Your task to perform on an android device: Open settings on Google Maps Image 0: 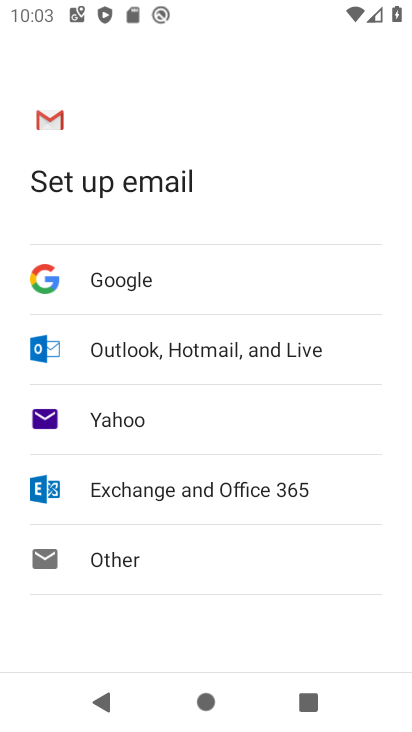
Step 0: press home button
Your task to perform on an android device: Open settings on Google Maps Image 1: 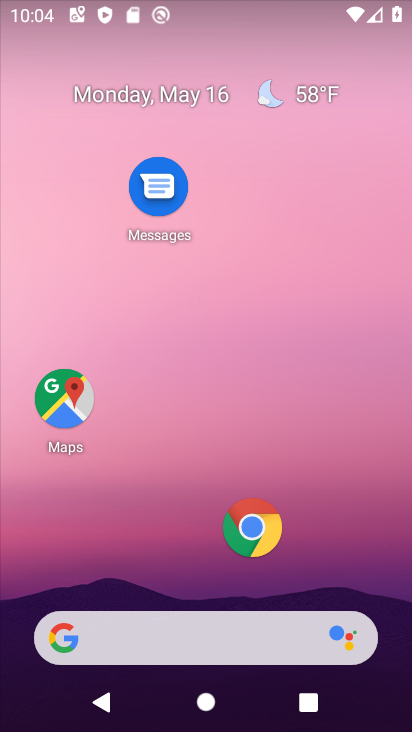
Step 1: click (61, 405)
Your task to perform on an android device: Open settings on Google Maps Image 2: 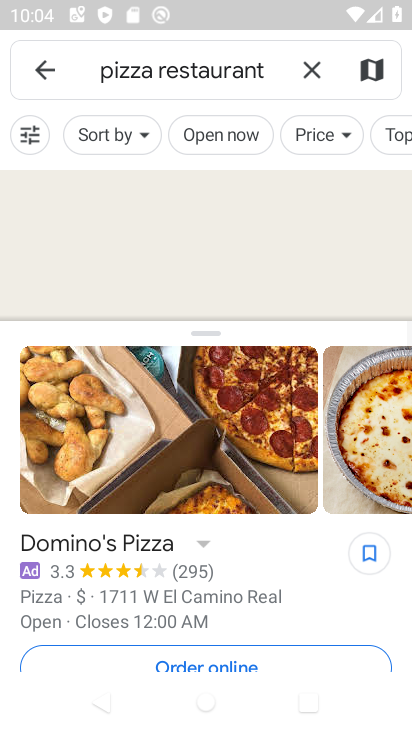
Step 2: click (305, 79)
Your task to perform on an android device: Open settings on Google Maps Image 3: 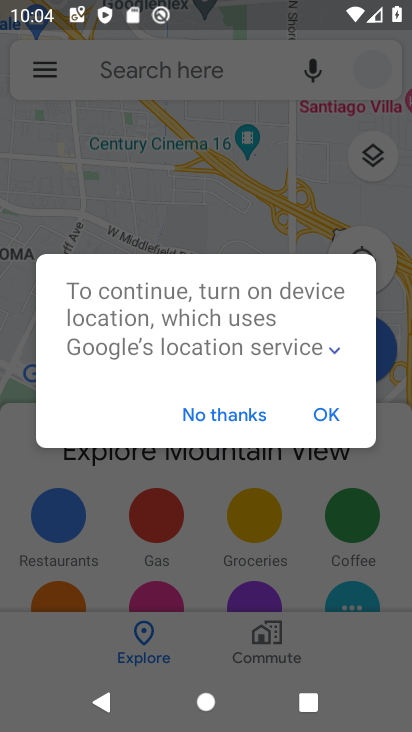
Step 3: click (259, 413)
Your task to perform on an android device: Open settings on Google Maps Image 4: 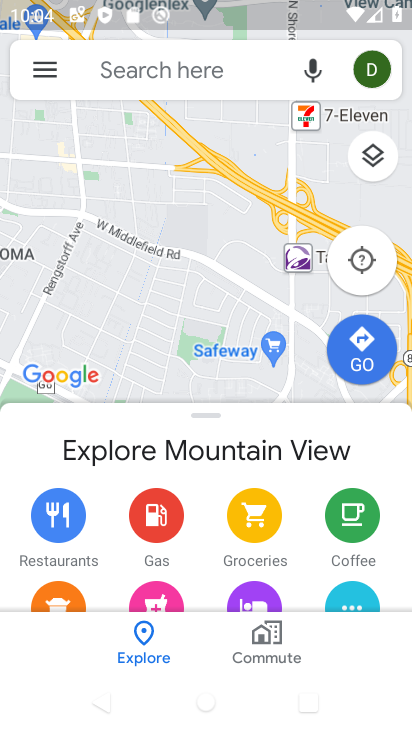
Step 4: click (41, 67)
Your task to perform on an android device: Open settings on Google Maps Image 5: 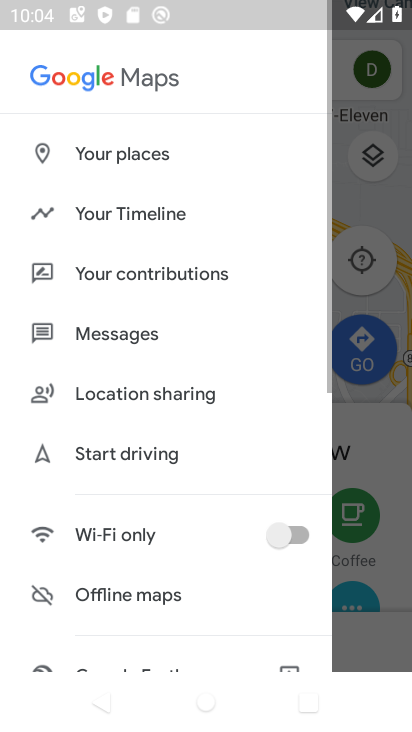
Step 5: drag from (146, 570) to (151, 176)
Your task to perform on an android device: Open settings on Google Maps Image 6: 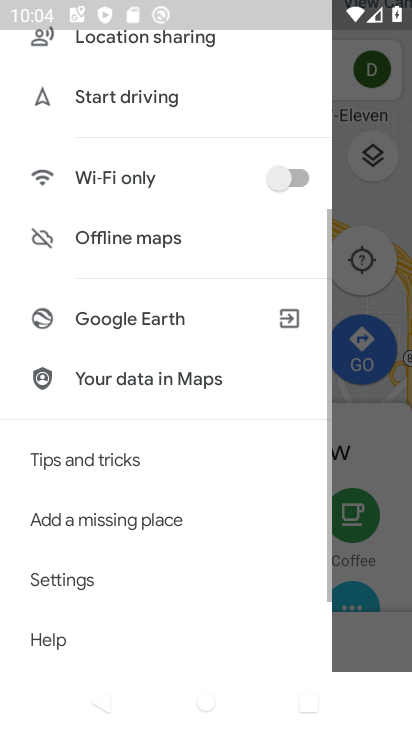
Step 6: drag from (166, 557) to (163, 301)
Your task to perform on an android device: Open settings on Google Maps Image 7: 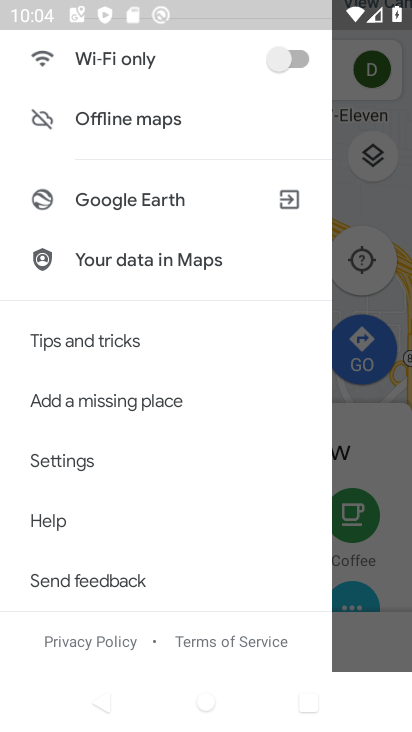
Step 7: click (74, 459)
Your task to perform on an android device: Open settings on Google Maps Image 8: 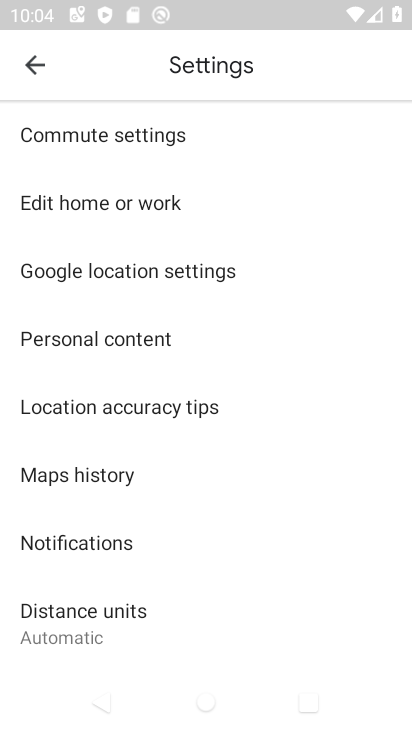
Step 8: task complete